Your task to perform on an android device: Search for Italian restaurants on Maps Image 0: 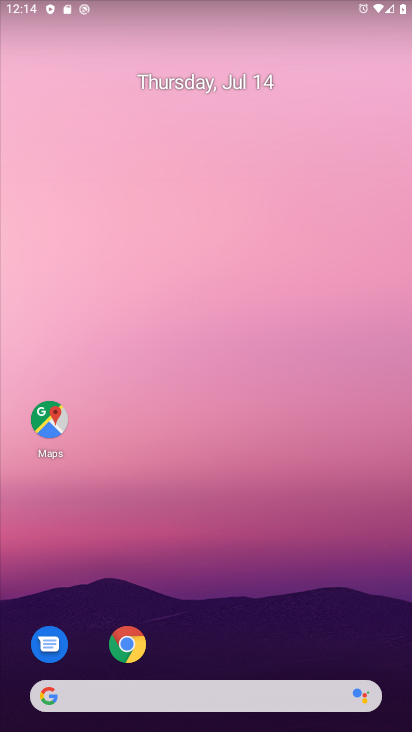
Step 0: click (47, 421)
Your task to perform on an android device: Search for Italian restaurants on Maps Image 1: 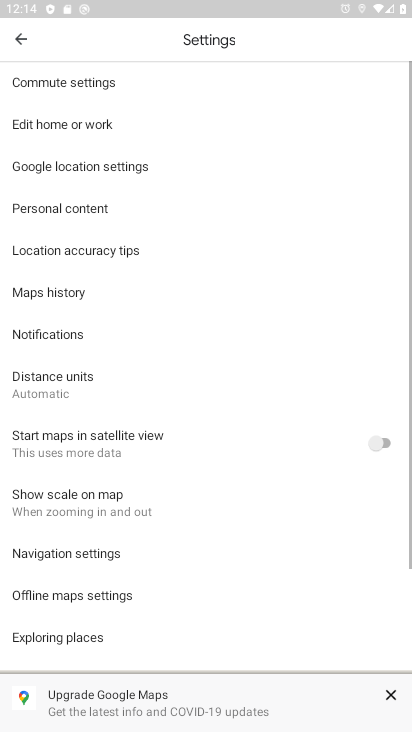
Step 1: click (15, 41)
Your task to perform on an android device: Search for Italian restaurants on Maps Image 2: 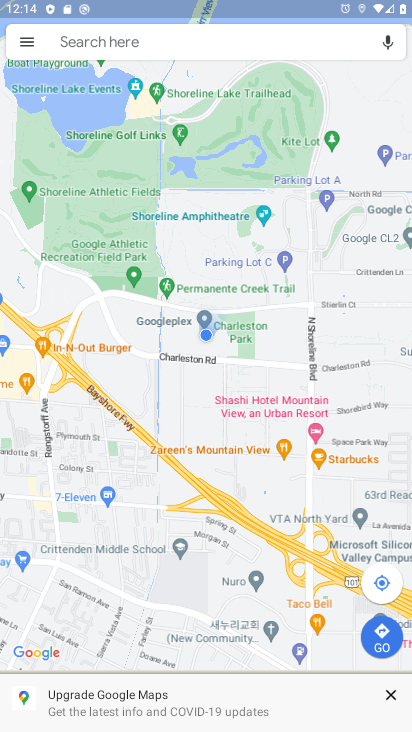
Step 2: click (203, 39)
Your task to perform on an android device: Search for Italian restaurants on Maps Image 3: 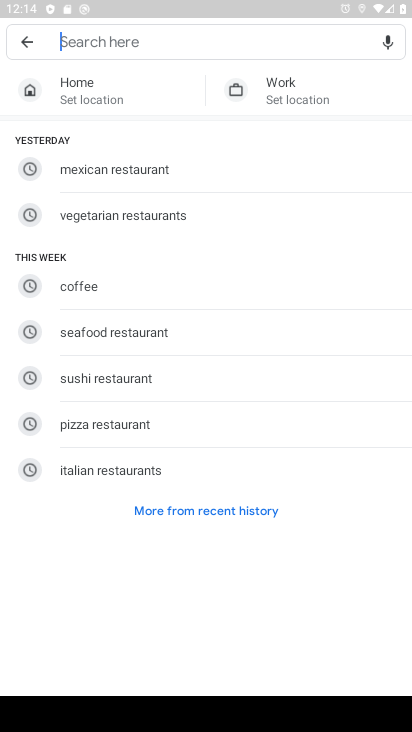
Step 3: click (67, 469)
Your task to perform on an android device: Search for Italian restaurants on Maps Image 4: 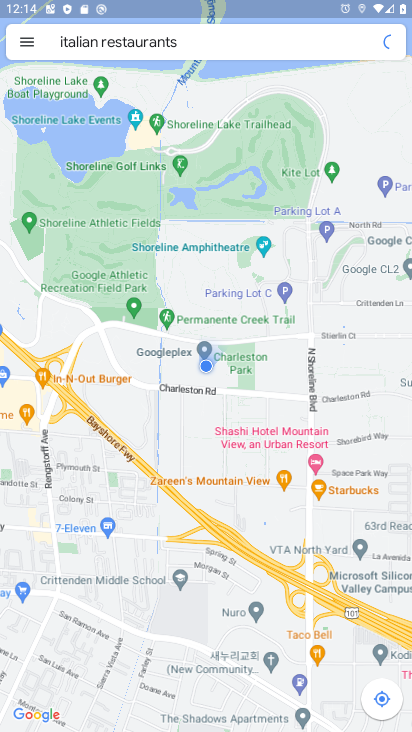
Step 4: task complete